Your task to perform on an android device: Open the phone app and click the voicemail tab. Image 0: 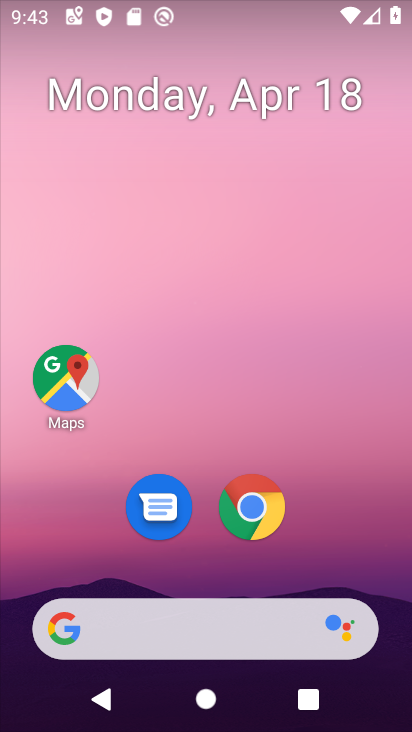
Step 0: drag from (180, 561) to (291, 39)
Your task to perform on an android device: Open the phone app and click the voicemail tab. Image 1: 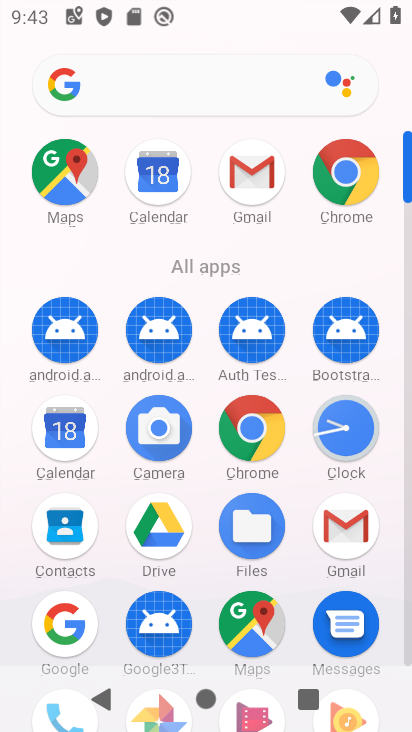
Step 1: click (62, 696)
Your task to perform on an android device: Open the phone app and click the voicemail tab. Image 2: 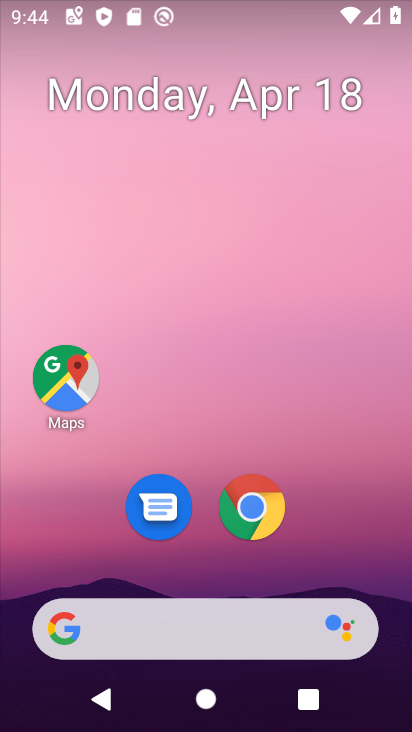
Step 2: drag from (116, 580) to (241, 97)
Your task to perform on an android device: Open the phone app and click the voicemail tab. Image 3: 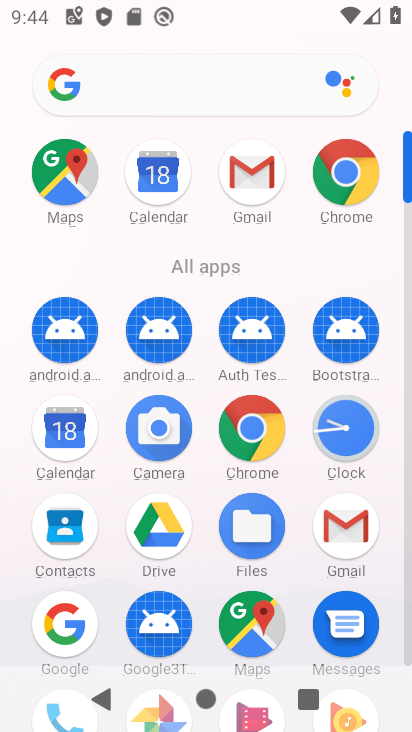
Step 3: drag from (106, 583) to (160, 275)
Your task to perform on an android device: Open the phone app and click the voicemail tab. Image 4: 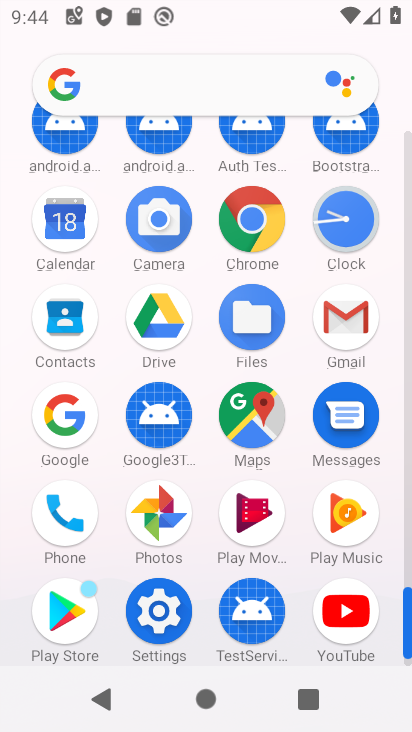
Step 4: click (65, 517)
Your task to perform on an android device: Open the phone app and click the voicemail tab. Image 5: 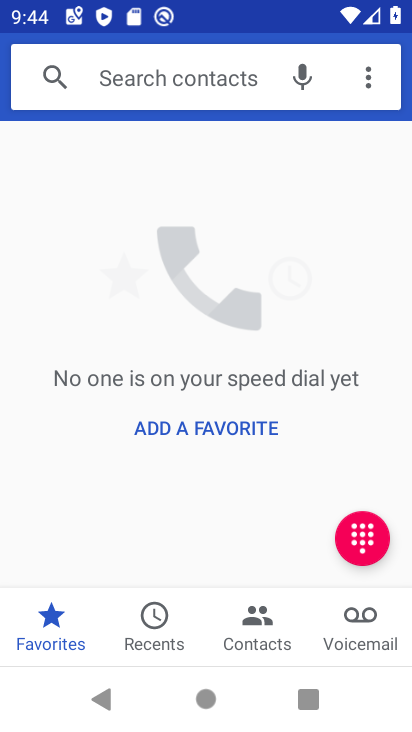
Step 5: click (365, 616)
Your task to perform on an android device: Open the phone app and click the voicemail tab. Image 6: 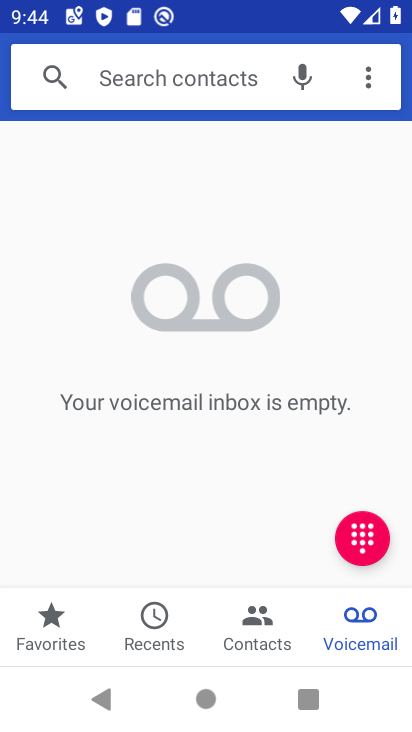
Step 6: click (358, 620)
Your task to perform on an android device: Open the phone app and click the voicemail tab. Image 7: 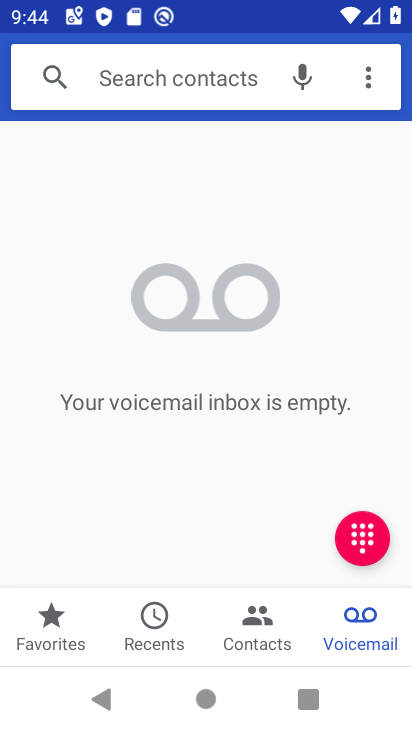
Step 7: task complete